Your task to perform on an android device: turn on wifi Image 0: 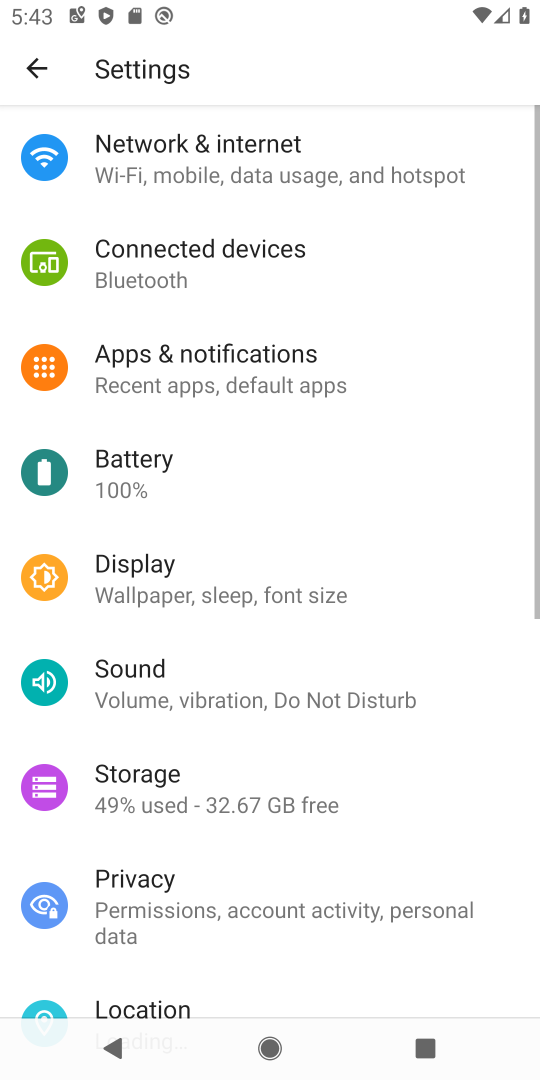
Step 0: press home button
Your task to perform on an android device: turn on wifi Image 1: 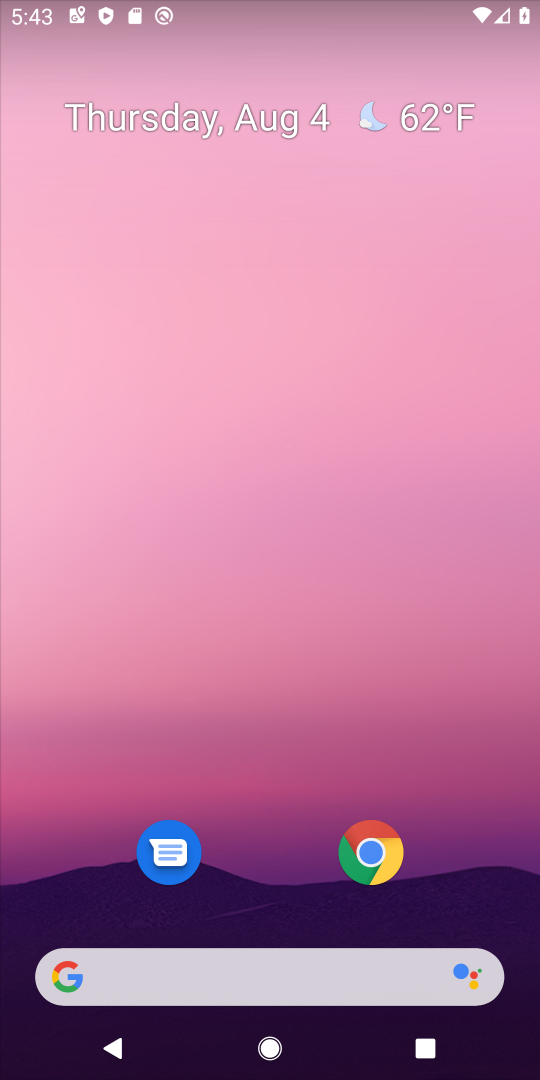
Step 1: drag from (248, 925) to (253, 221)
Your task to perform on an android device: turn on wifi Image 2: 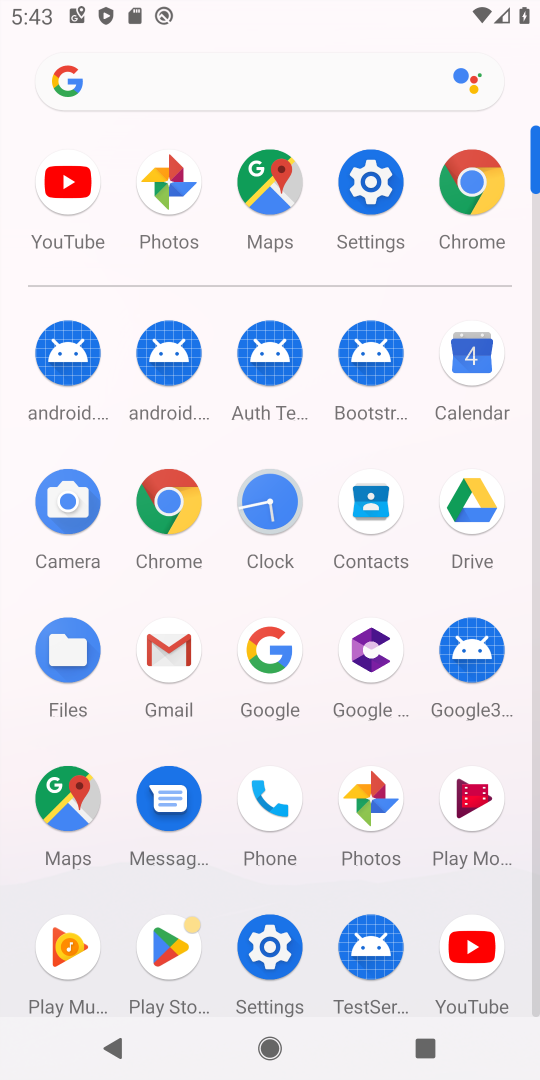
Step 2: click (376, 177)
Your task to perform on an android device: turn on wifi Image 3: 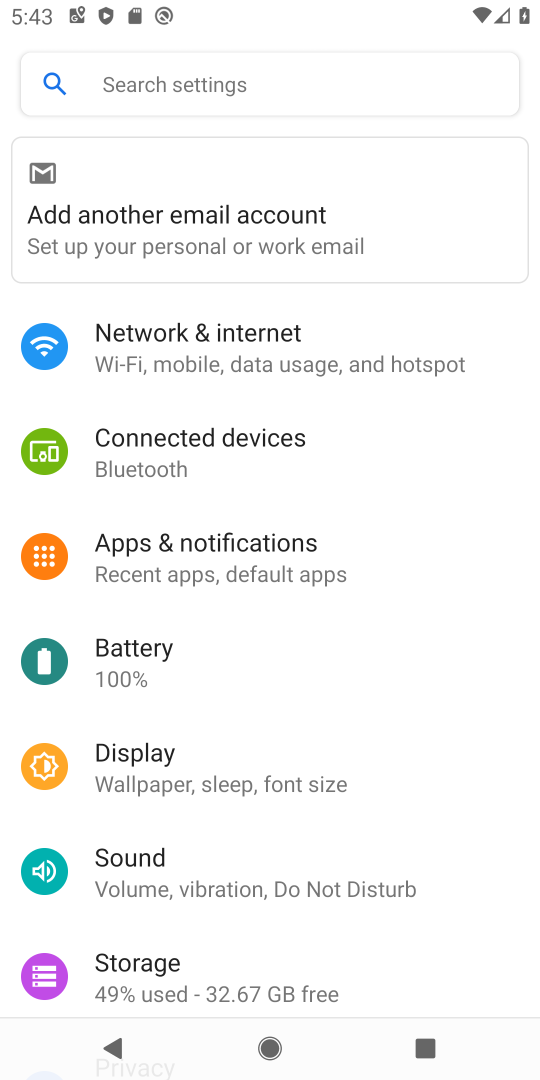
Step 3: click (212, 348)
Your task to perform on an android device: turn on wifi Image 4: 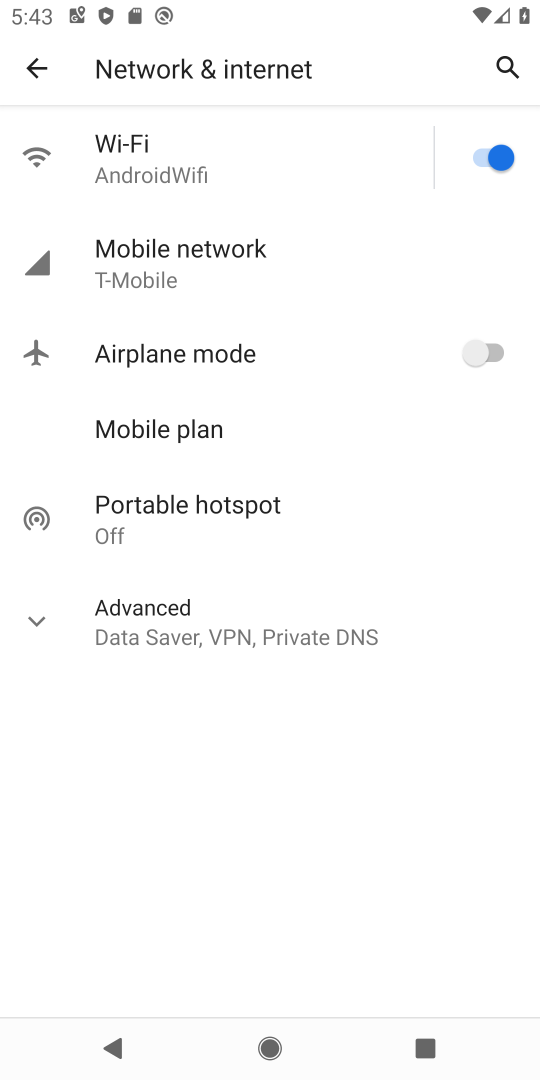
Step 4: task complete